Your task to perform on an android device: find photos in the google photos app Image 0: 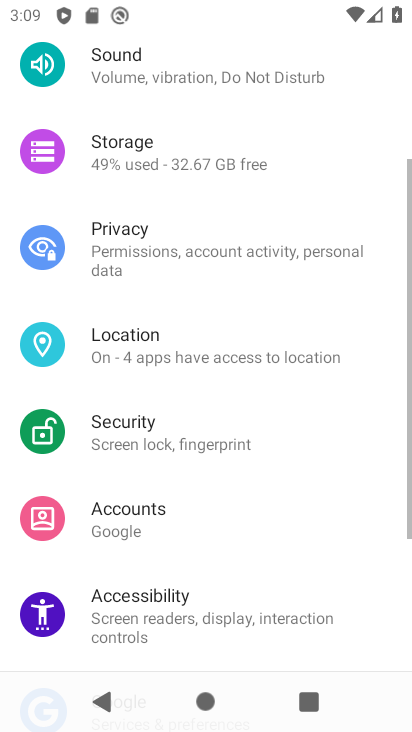
Step 0: press home button
Your task to perform on an android device: find photos in the google photos app Image 1: 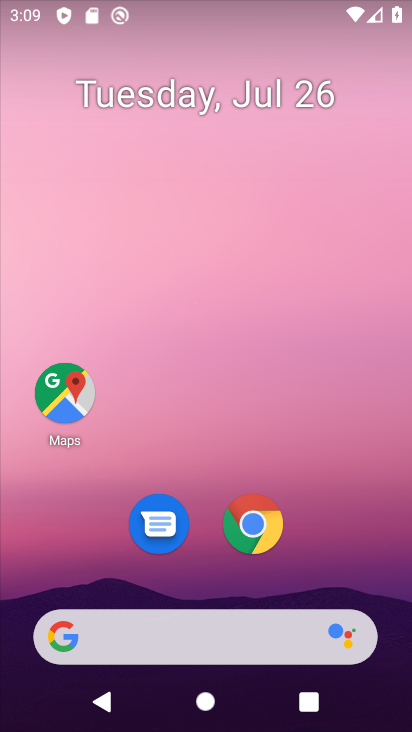
Step 1: click (240, 649)
Your task to perform on an android device: find photos in the google photos app Image 2: 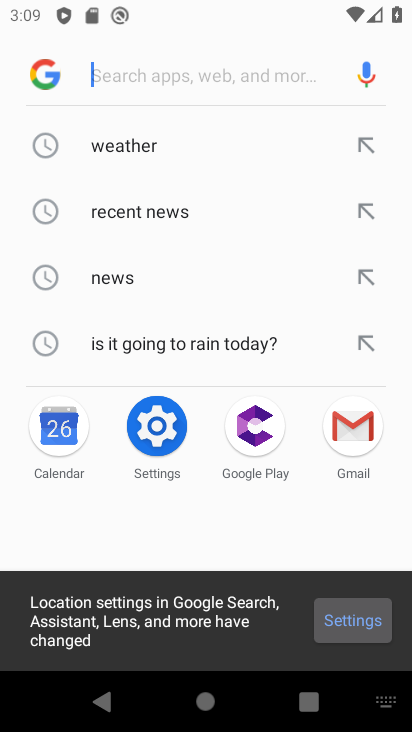
Step 2: task complete